Your task to perform on an android device: Open calendar and show me the first week of next month Image 0: 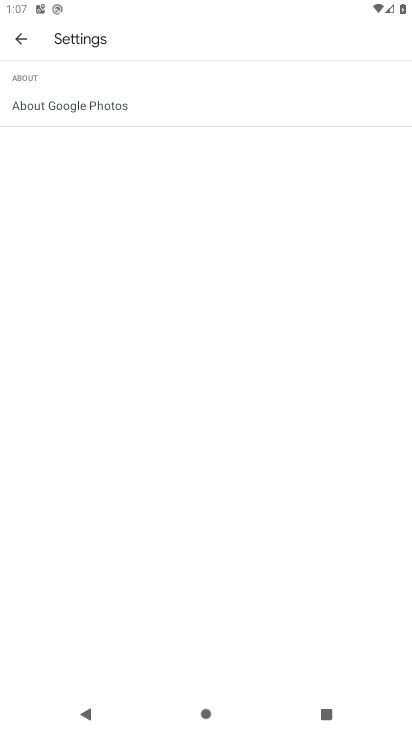
Step 0: press home button
Your task to perform on an android device: Open calendar and show me the first week of next month Image 1: 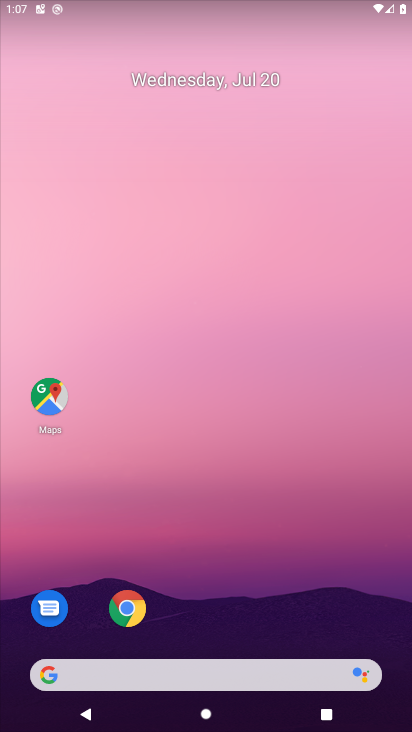
Step 1: drag from (198, 632) to (212, 223)
Your task to perform on an android device: Open calendar and show me the first week of next month Image 2: 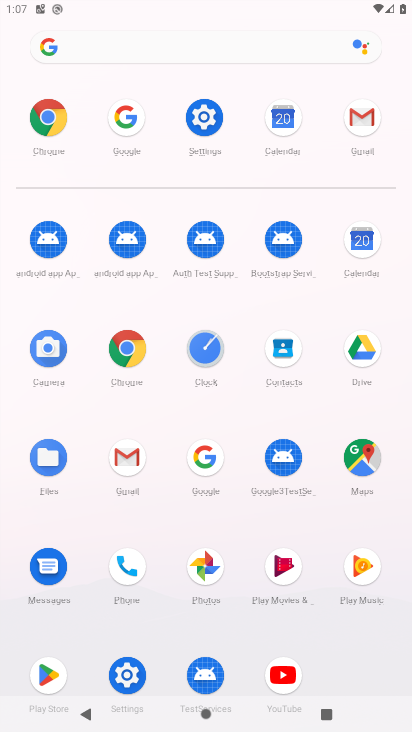
Step 2: click (278, 114)
Your task to perform on an android device: Open calendar and show me the first week of next month Image 3: 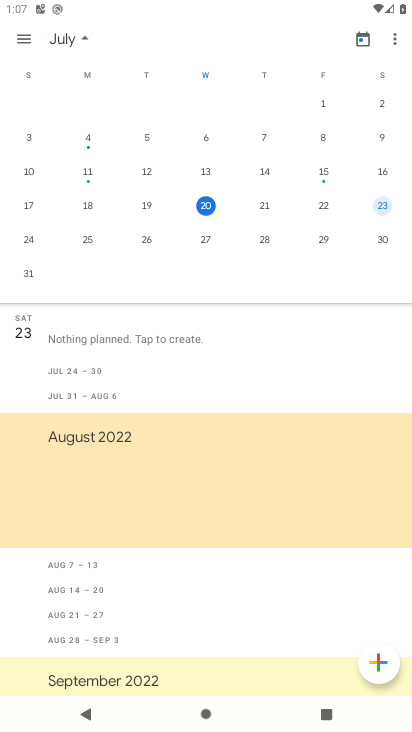
Step 3: drag from (389, 154) to (0, 181)
Your task to perform on an android device: Open calendar and show me the first week of next month Image 4: 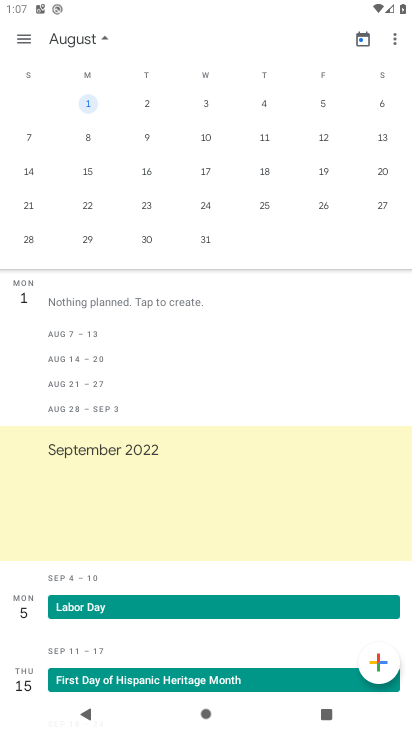
Step 4: click (90, 96)
Your task to perform on an android device: Open calendar and show me the first week of next month Image 5: 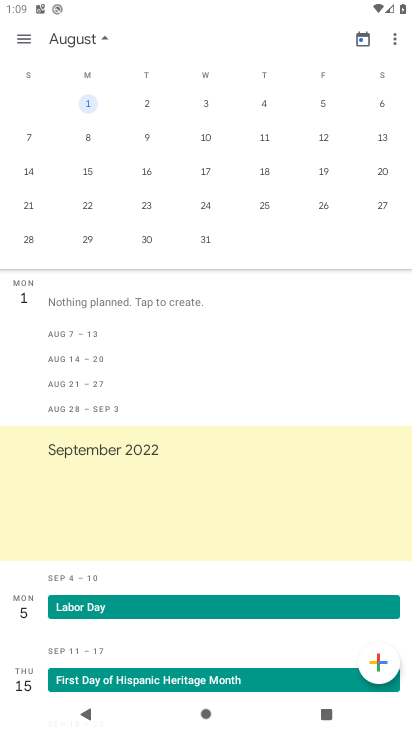
Step 5: task complete